Your task to perform on an android device: turn on the 24-hour format for clock Image 0: 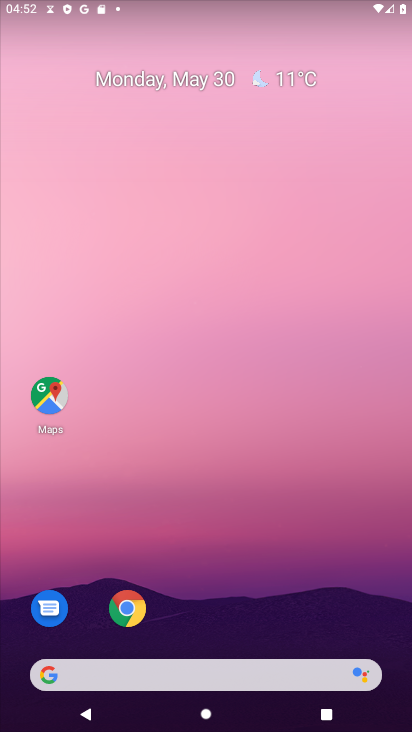
Step 0: drag from (131, 653) to (135, 572)
Your task to perform on an android device: turn on the 24-hour format for clock Image 1: 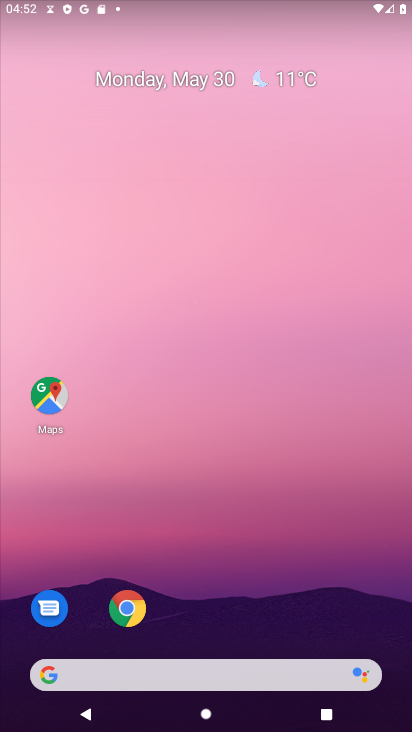
Step 1: drag from (182, 659) to (271, 218)
Your task to perform on an android device: turn on the 24-hour format for clock Image 2: 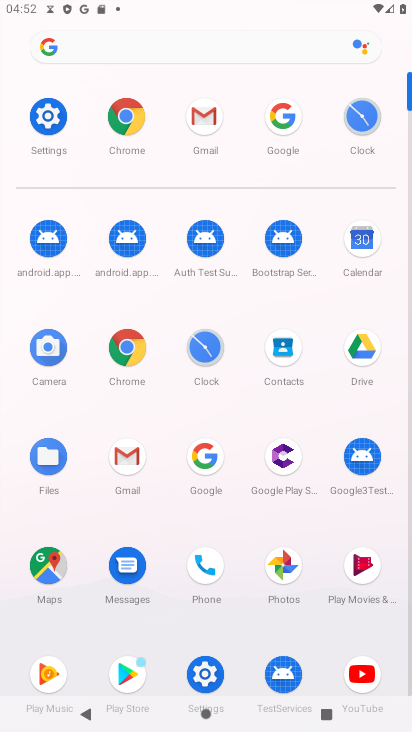
Step 2: click (359, 120)
Your task to perform on an android device: turn on the 24-hour format for clock Image 3: 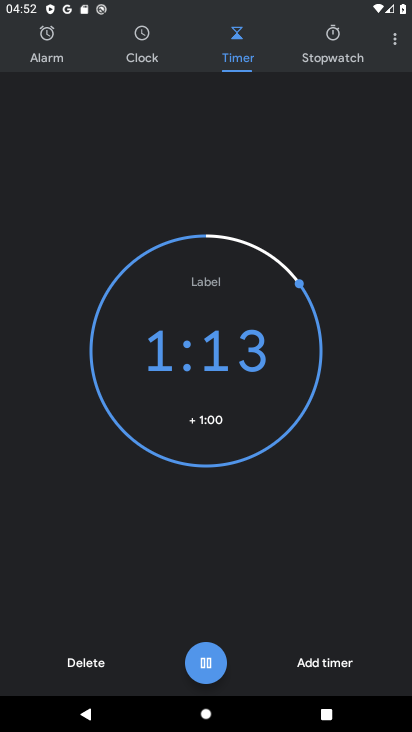
Step 3: click (390, 47)
Your task to perform on an android device: turn on the 24-hour format for clock Image 4: 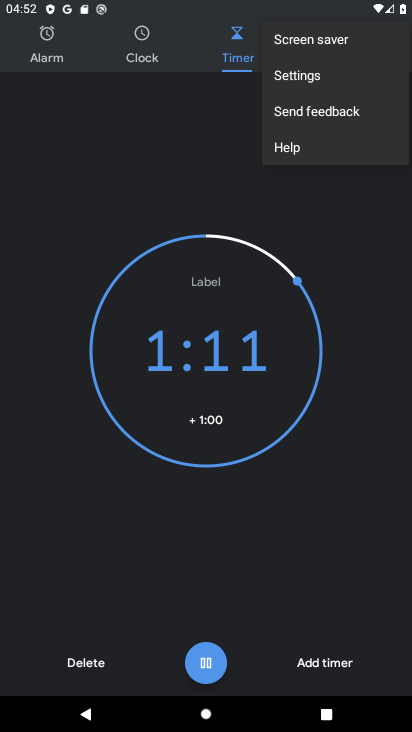
Step 4: click (292, 76)
Your task to perform on an android device: turn on the 24-hour format for clock Image 5: 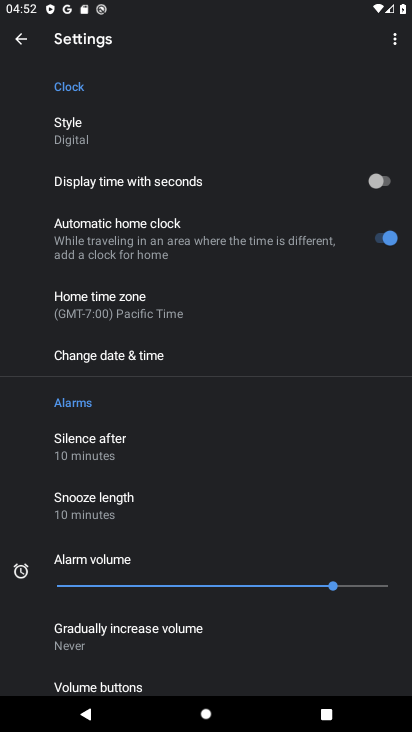
Step 5: click (133, 354)
Your task to perform on an android device: turn on the 24-hour format for clock Image 6: 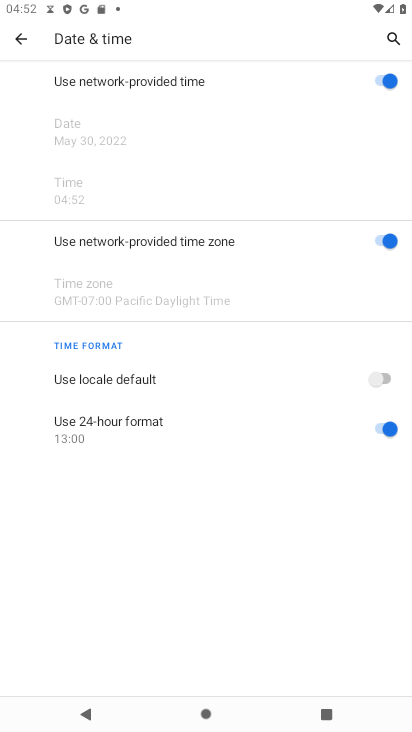
Step 6: task complete